Your task to perform on an android device: snooze an email in the gmail app Image 0: 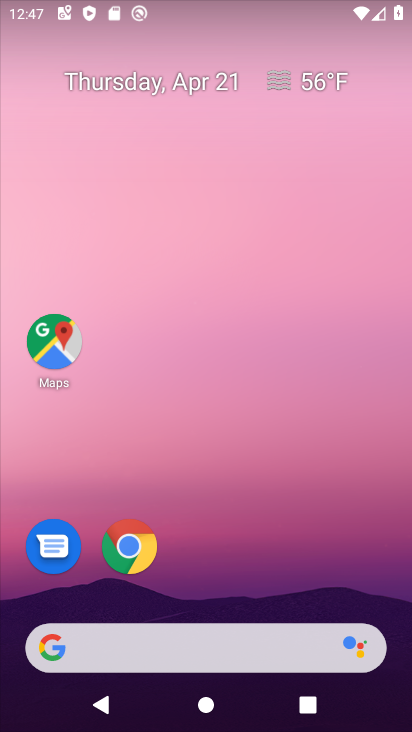
Step 0: drag from (170, 638) to (317, 92)
Your task to perform on an android device: snooze an email in the gmail app Image 1: 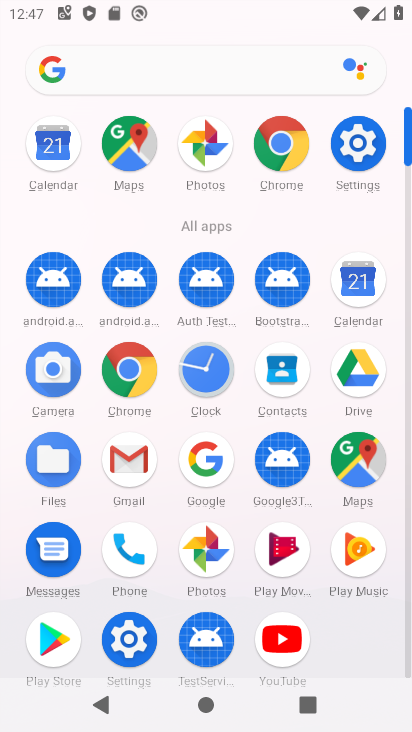
Step 1: click (135, 472)
Your task to perform on an android device: snooze an email in the gmail app Image 2: 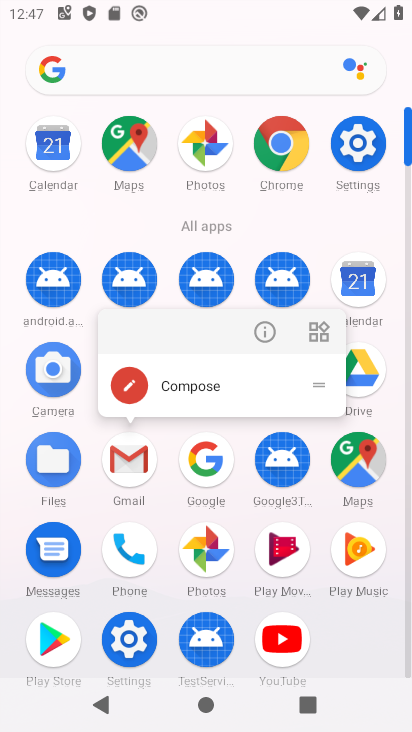
Step 2: click (124, 472)
Your task to perform on an android device: snooze an email in the gmail app Image 3: 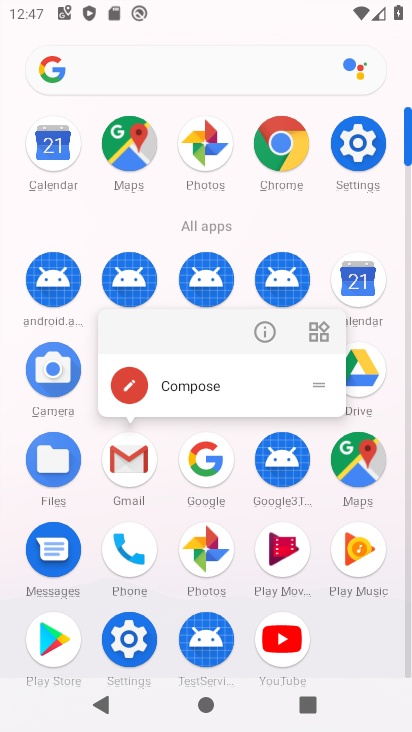
Step 3: click (124, 472)
Your task to perform on an android device: snooze an email in the gmail app Image 4: 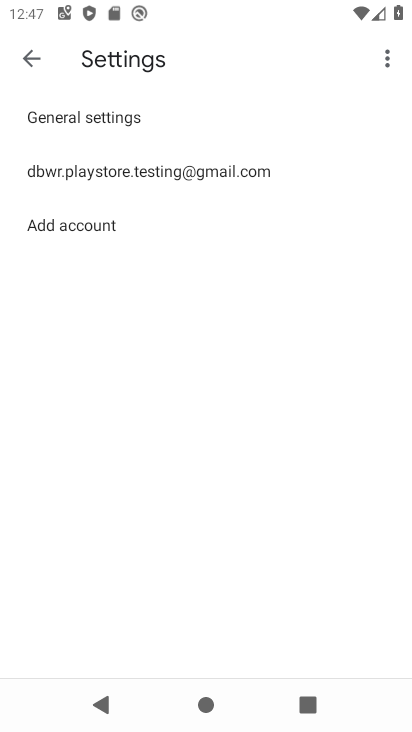
Step 4: click (30, 59)
Your task to perform on an android device: snooze an email in the gmail app Image 5: 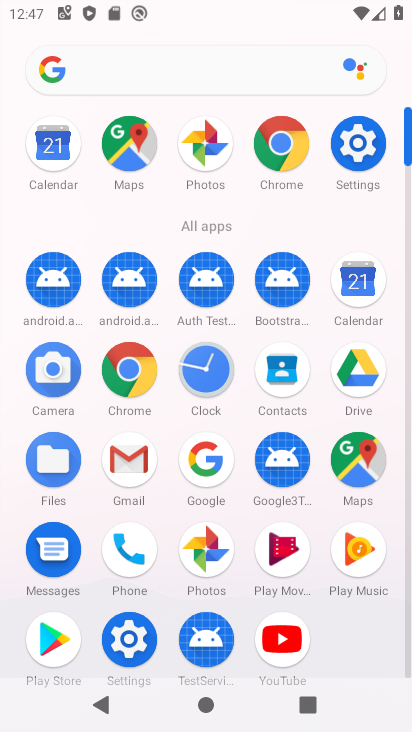
Step 5: click (132, 465)
Your task to perform on an android device: snooze an email in the gmail app Image 6: 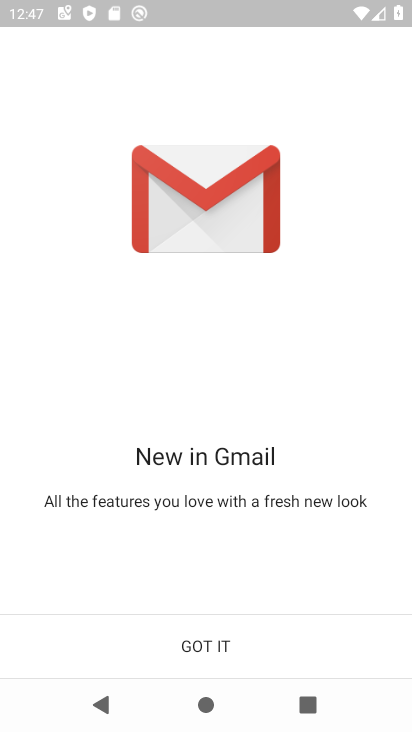
Step 6: click (199, 641)
Your task to perform on an android device: snooze an email in the gmail app Image 7: 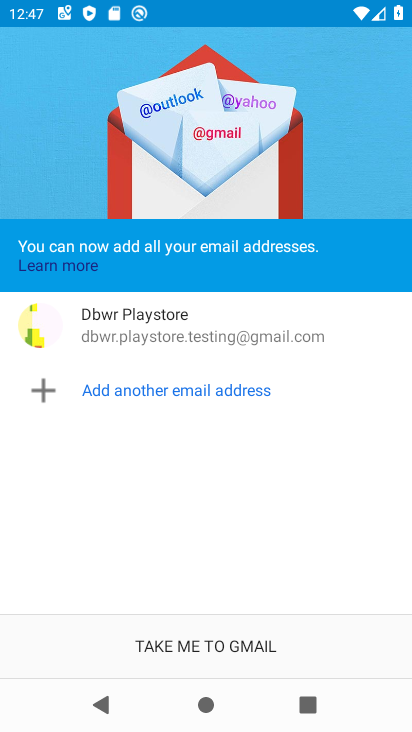
Step 7: click (213, 646)
Your task to perform on an android device: snooze an email in the gmail app Image 8: 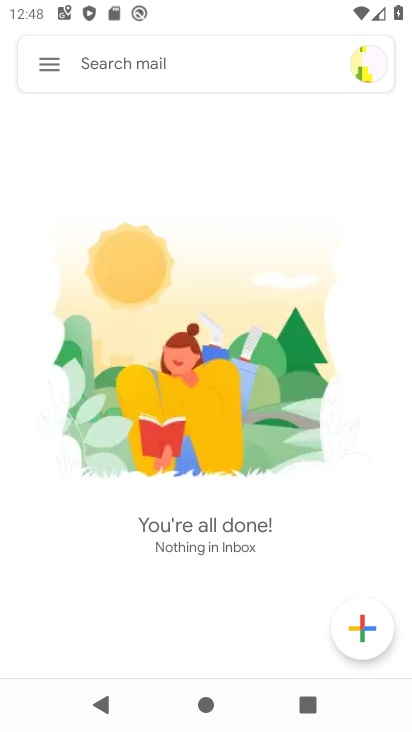
Step 8: task complete